Your task to perform on an android device: Check the weather Image 0: 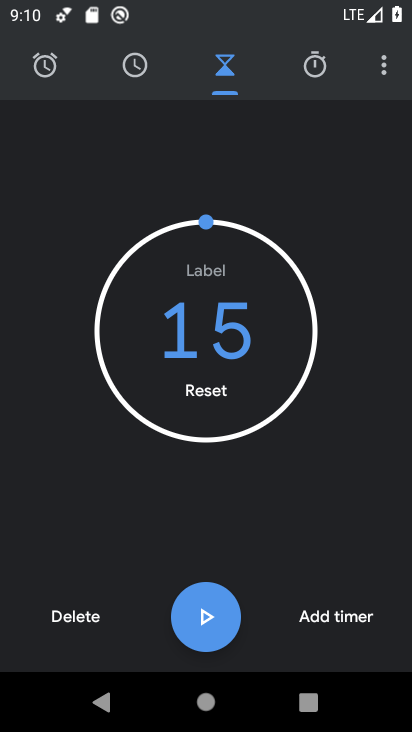
Step 0: press home button
Your task to perform on an android device: Check the weather Image 1: 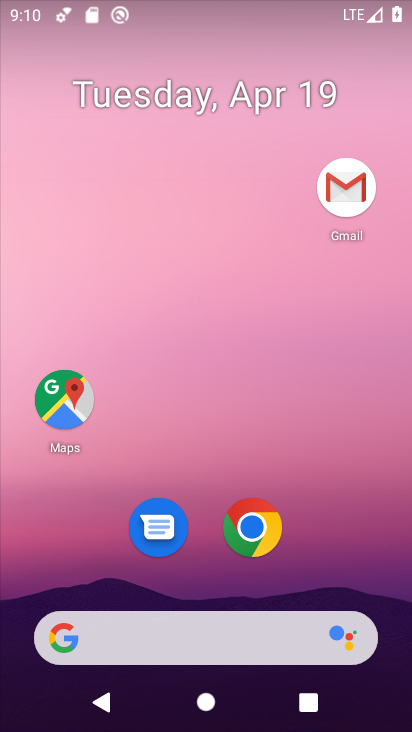
Step 1: drag from (379, 517) to (348, 117)
Your task to perform on an android device: Check the weather Image 2: 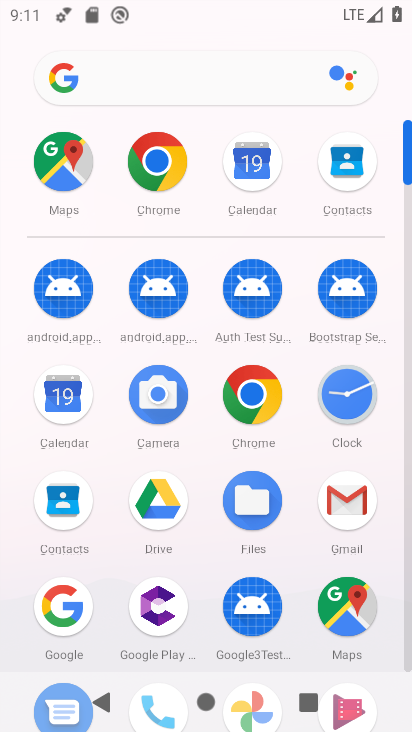
Step 2: click (144, 179)
Your task to perform on an android device: Check the weather Image 3: 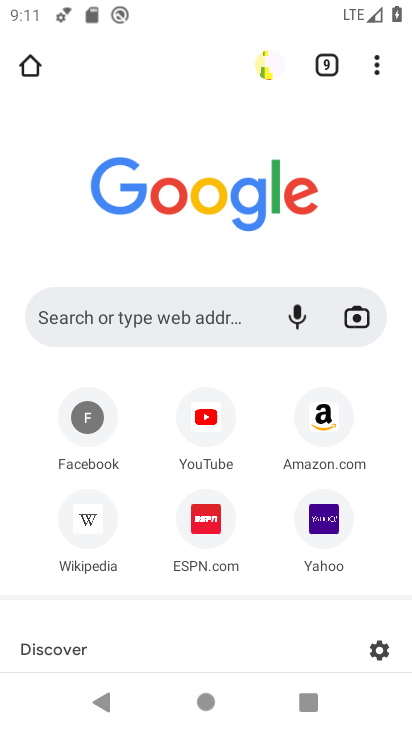
Step 3: click (185, 318)
Your task to perform on an android device: Check the weather Image 4: 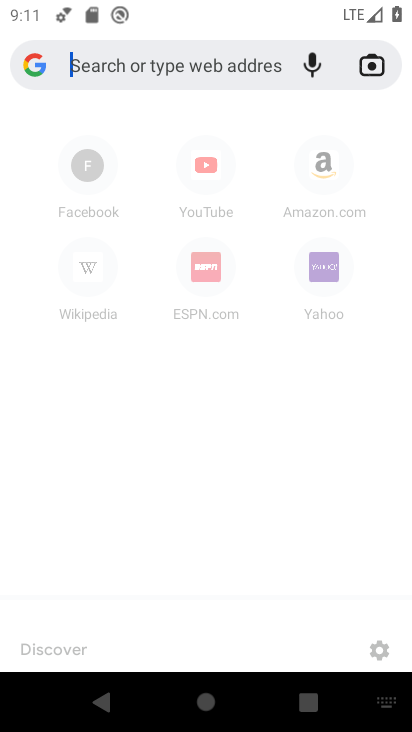
Step 4: type "weather"
Your task to perform on an android device: Check the weather Image 5: 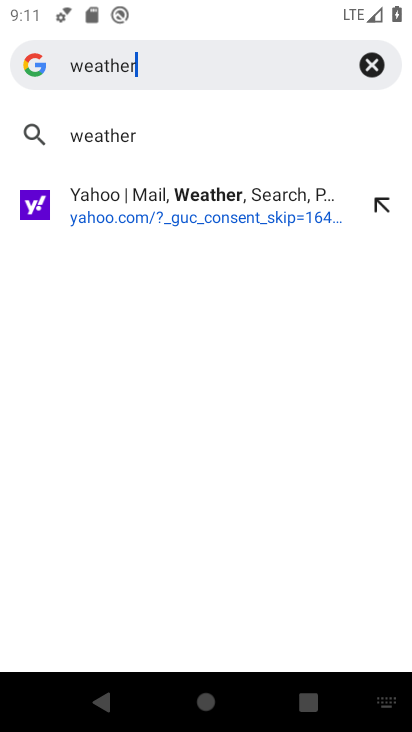
Step 5: click (89, 146)
Your task to perform on an android device: Check the weather Image 6: 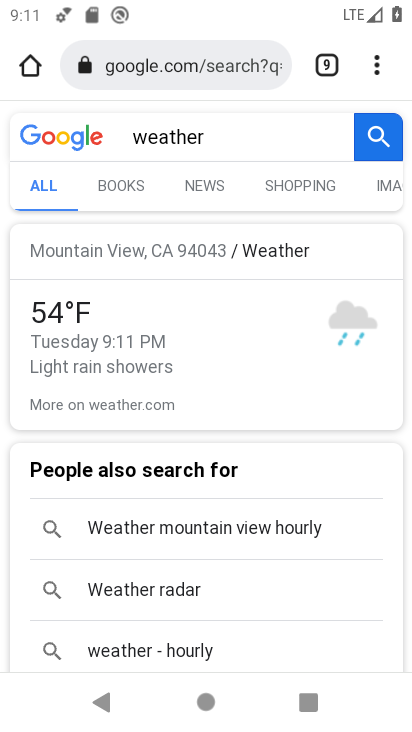
Step 6: task complete